Your task to perform on an android device: What's the weather? Image 0: 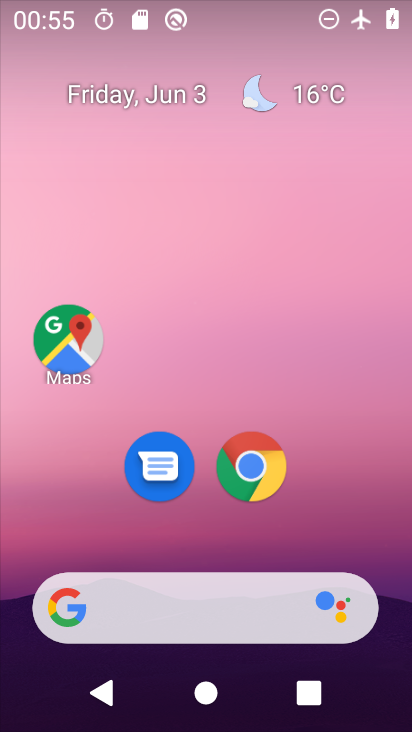
Step 0: drag from (211, 541) to (241, 197)
Your task to perform on an android device: What's the weather? Image 1: 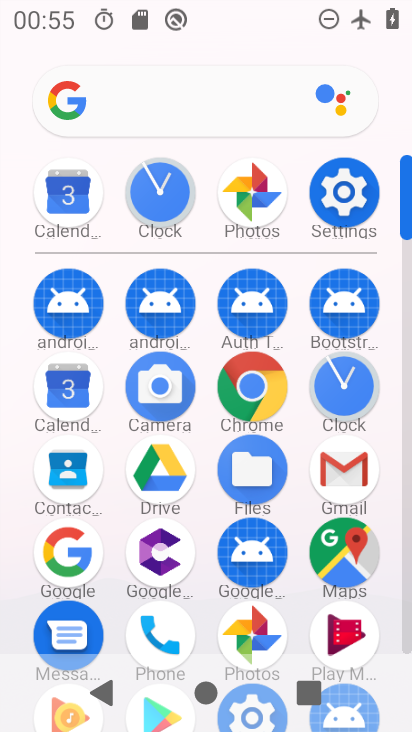
Step 1: click (76, 548)
Your task to perform on an android device: What's the weather? Image 2: 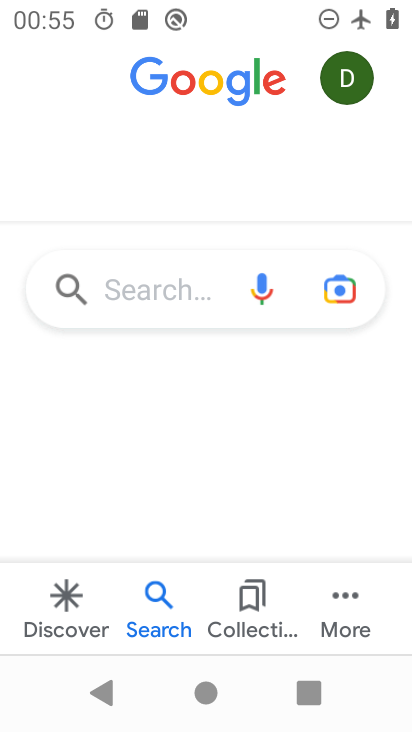
Step 2: click (124, 300)
Your task to perform on an android device: What's the weather? Image 3: 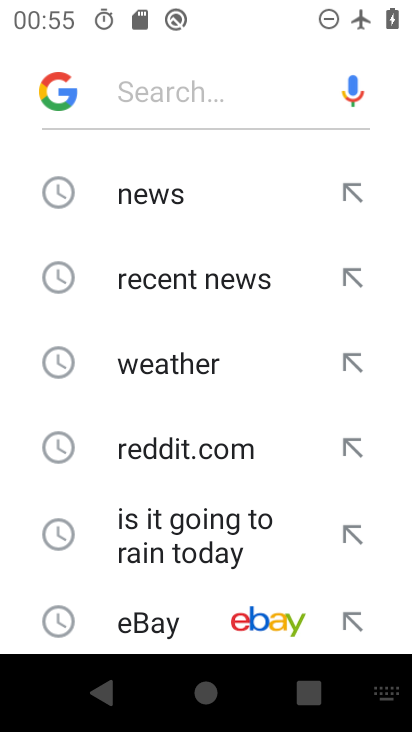
Step 3: click (163, 356)
Your task to perform on an android device: What's the weather? Image 4: 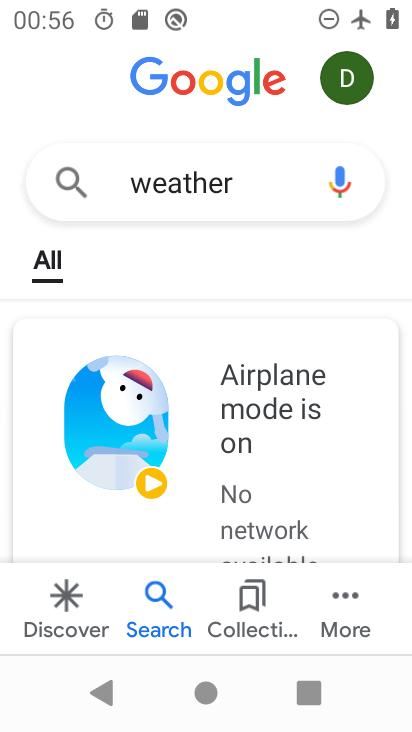
Step 4: task complete